Your task to perform on an android device: Open Youtube and go to the subscriptions tab Image 0: 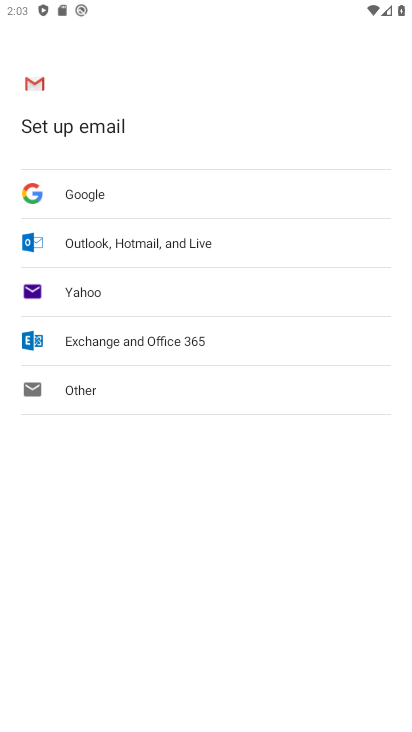
Step 0: press home button
Your task to perform on an android device: Open Youtube and go to the subscriptions tab Image 1: 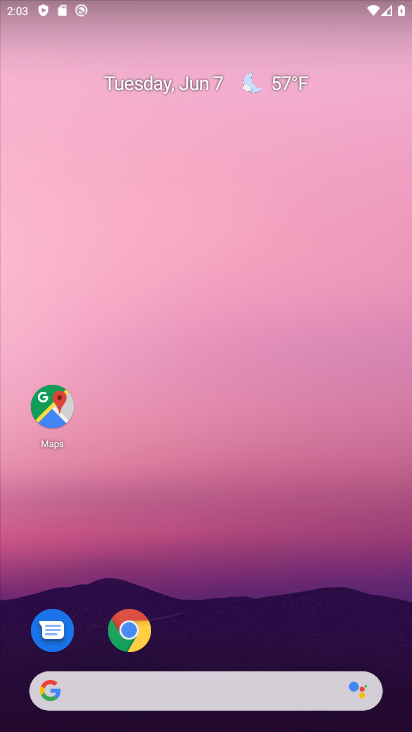
Step 1: drag from (392, 712) to (371, 37)
Your task to perform on an android device: Open Youtube and go to the subscriptions tab Image 2: 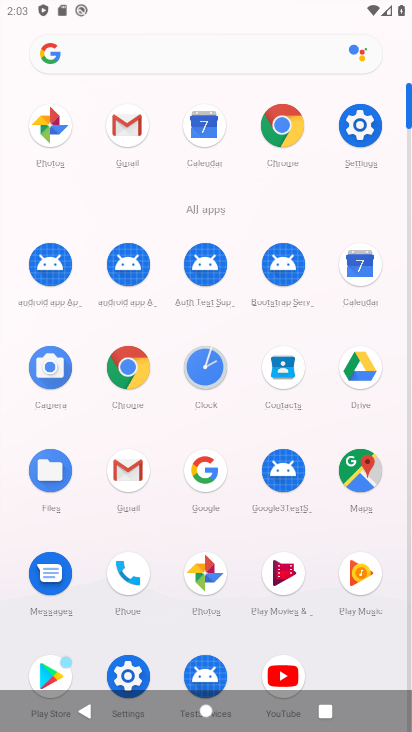
Step 2: click (263, 670)
Your task to perform on an android device: Open Youtube and go to the subscriptions tab Image 3: 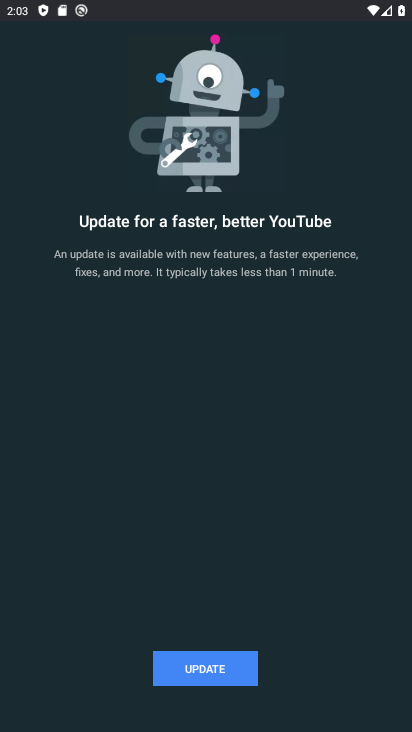
Step 3: click (188, 664)
Your task to perform on an android device: Open Youtube and go to the subscriptions tab Image 4: 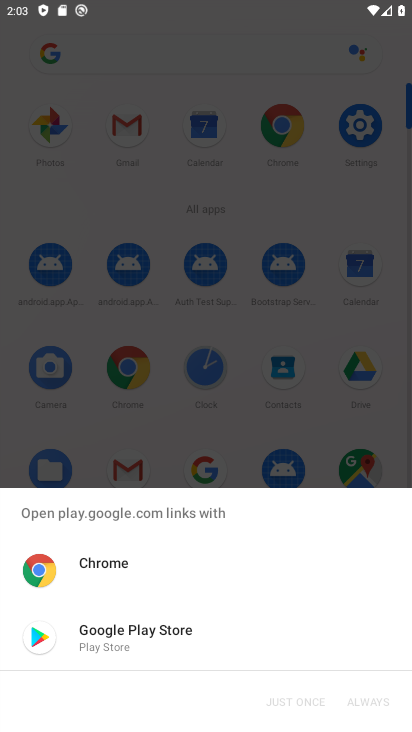
Step 4: click (174, 627)
Your task to perform on an android device: Open Youtube and go to the subscriptions tab Image 5: 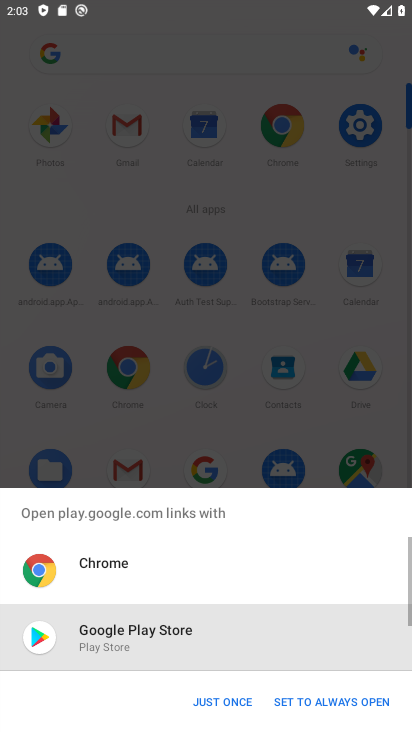
Step 5: click (298, 702)
Your task to perform on an android device: Open Youtube and go to the subscriptions tab Image 6: 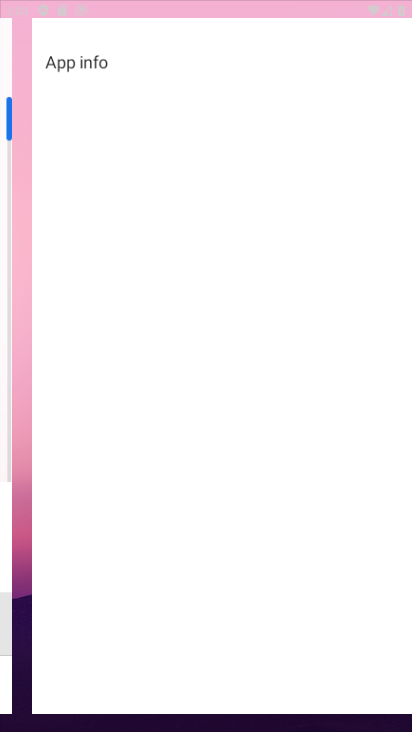
Step 6: click (241, 707)
Your task to perform on an android device: Open Youtube and go to the subscriptions tab Image 7: 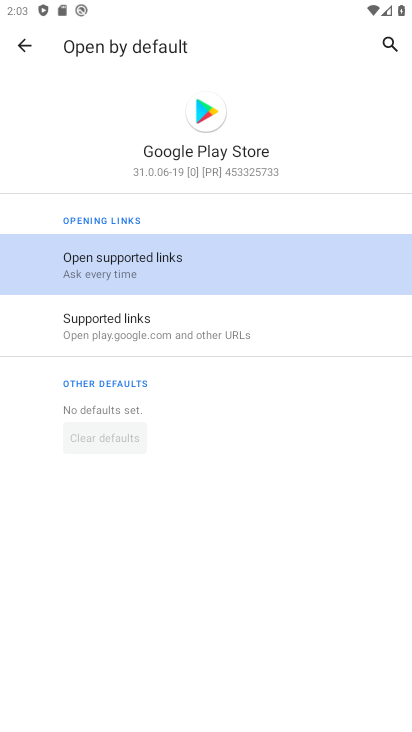
Step 7: press back button
Your task to perform on an android device: Open Youtube and go to the subscriptions tab Image 8: 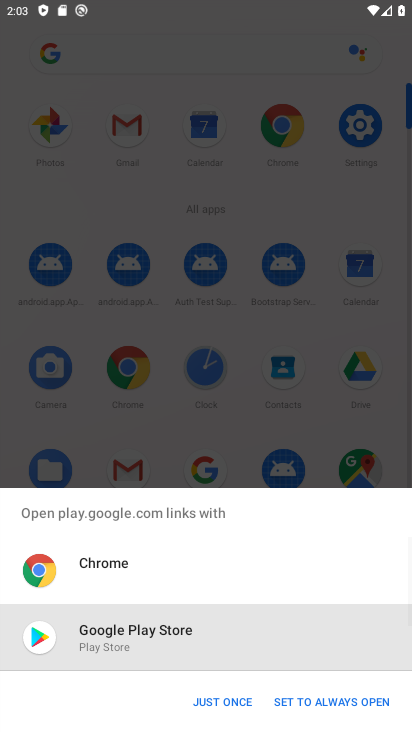
Step 8: click (225, 697)
Your task to perform on an android device: Open Youtube and go to the subscriptions tab Image 9: 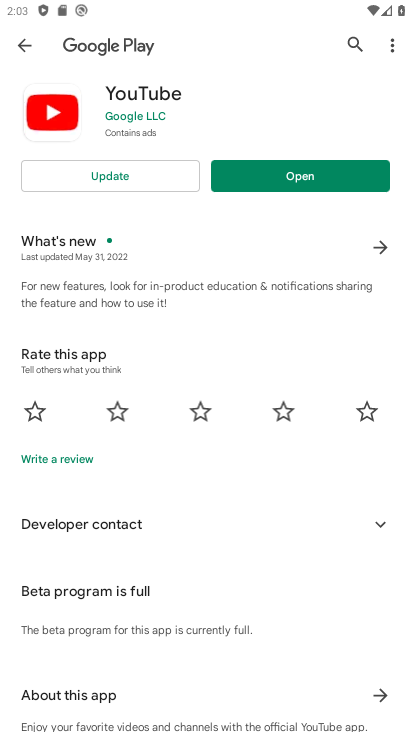
Step 9: click (128, 182)
Your task to perform on an android device: Open Youtube and go to the subscriptions tab Image 10: 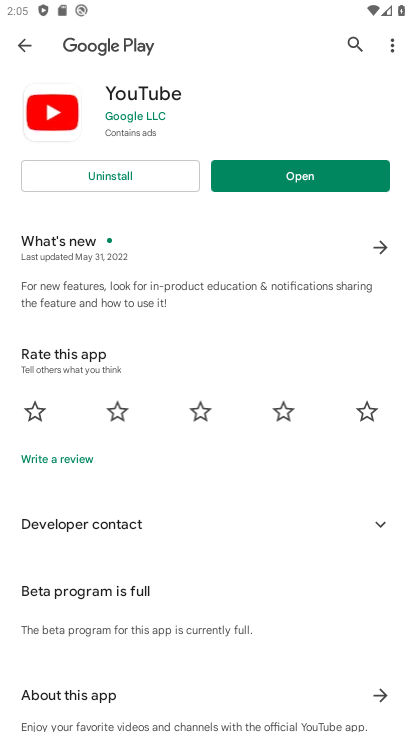
Step 10: click (327, 178)
Your task to perform on an android device: Open Youtube and go to the subscriptions tab Image 11: 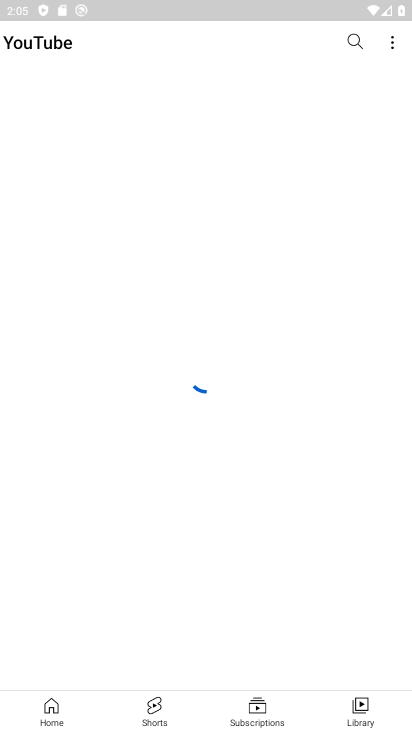
Step 11: click (248, 708)
Your task to perform on an android device: Open Youtube and go to the subscriptions tab Image 12: 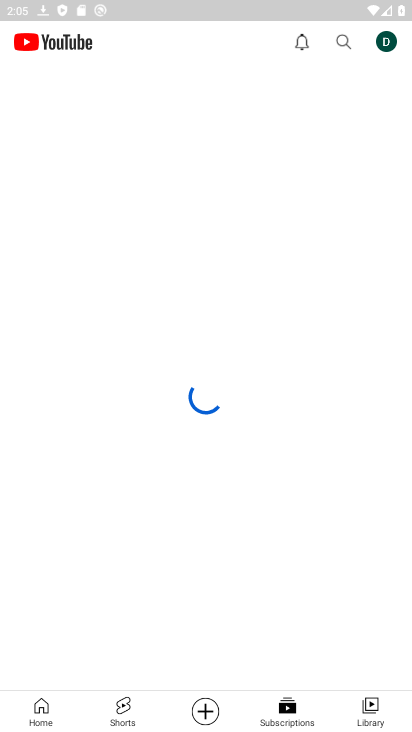
Step 12: click (282, 721)
Your task to perform on an android device: Open Youtube and go to the subscriptions tab Image 13: 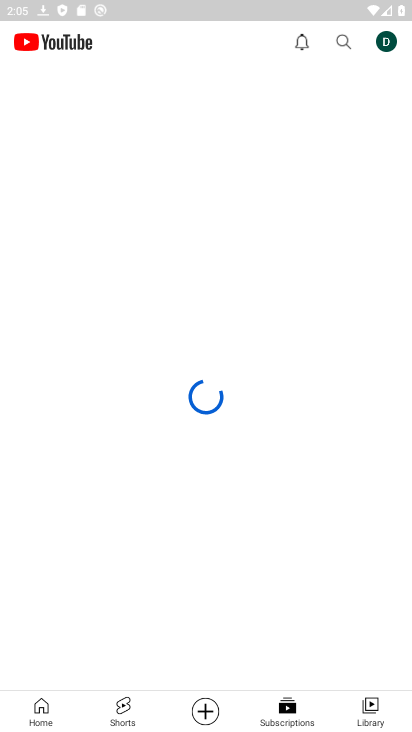
Step 13: click (282, 706)
Your task to perform on an android device: Open Youtube and go to the subscriptions tab Image 14: 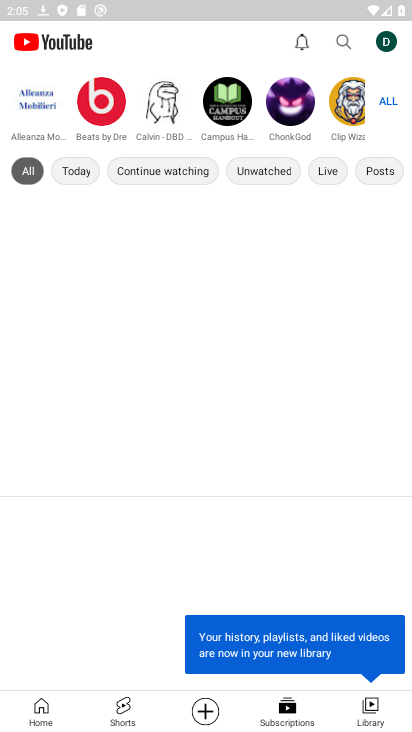
Step 14: click (282, 706)
Your task to perform on an android device: Open Youtube and go to the subscriptions tab Image 15: 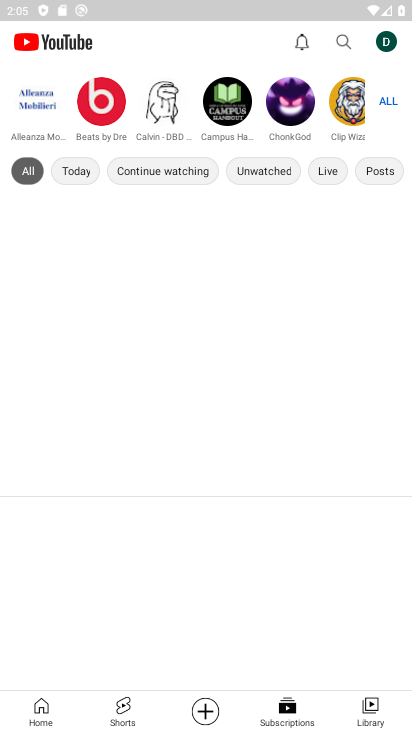
Step 15: task complete